Your task to perform on an android device: Open the map Image 0: 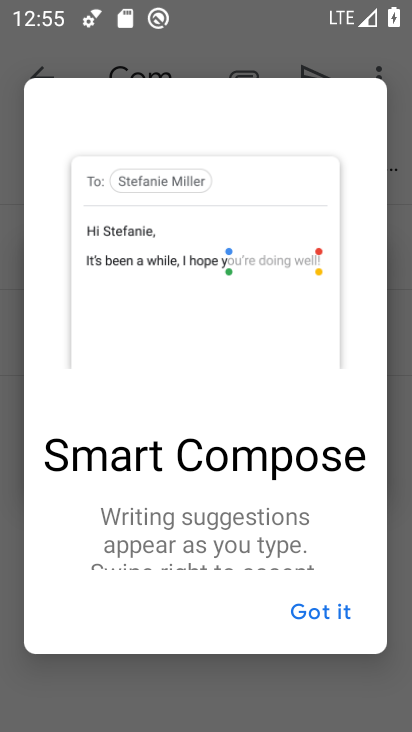
Step 0: press home button
Your task to perform on an android device: Open the map Image 1: 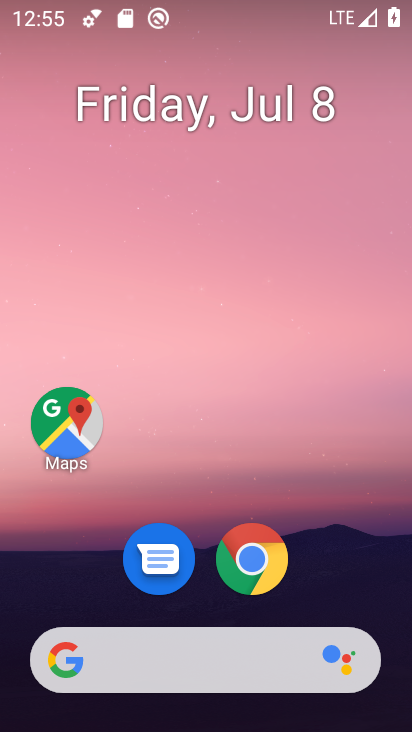
Step 1: drag from (195, 645) to (396, 17)
Your task to perform on an android device: Open the map Image 2: 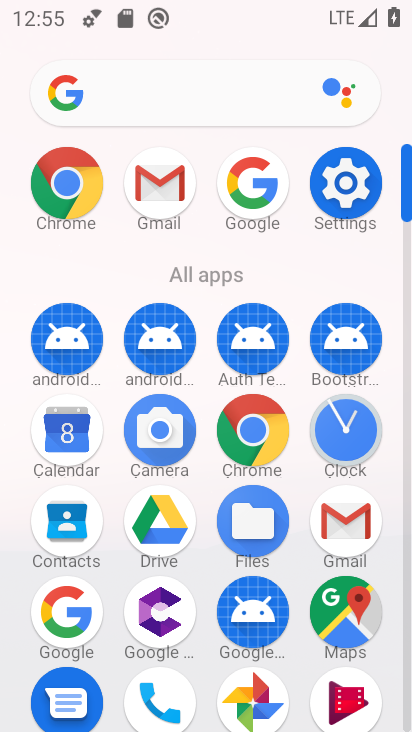
Step 2: click (348, 600)
Your task to perform on an android device: Open the map Image 3: 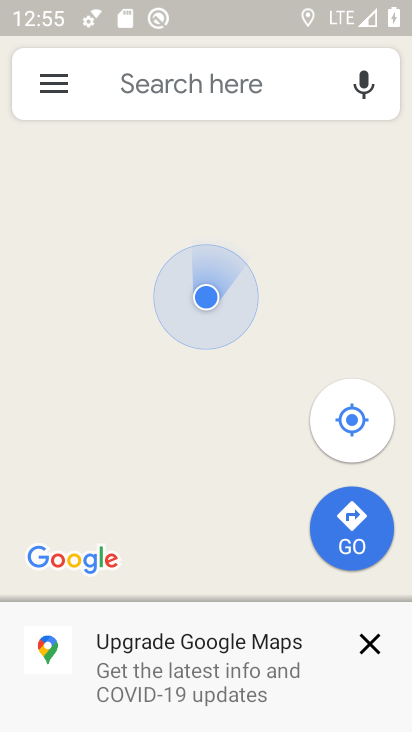
Step 3: click (370, 635)
Your task to perform on an android device: Open the map Image 4: 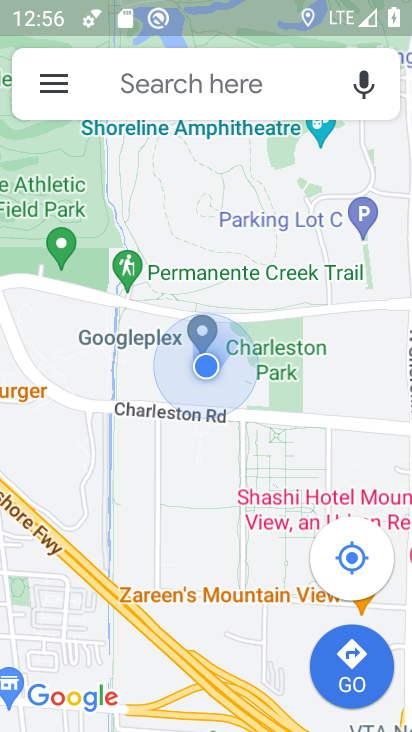
Step 4: task complete